Your task to perform on an android device: Is it going to rain this weekend? Image 0: 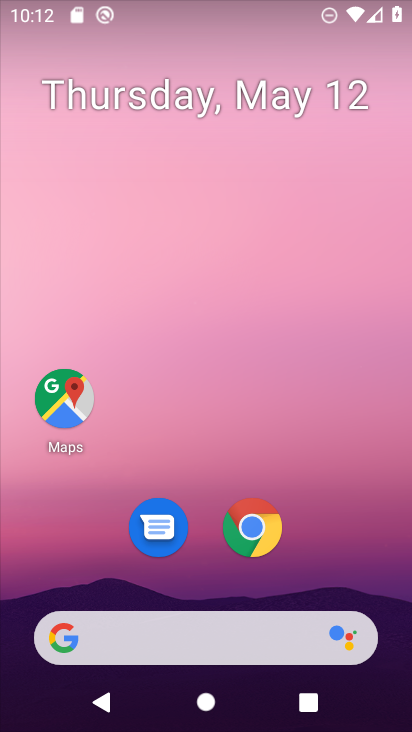
Step 0: drag from (324, 579) to (345, 99)
Your task to perform on an android device: Is it going to rain this weekend? Image 1: 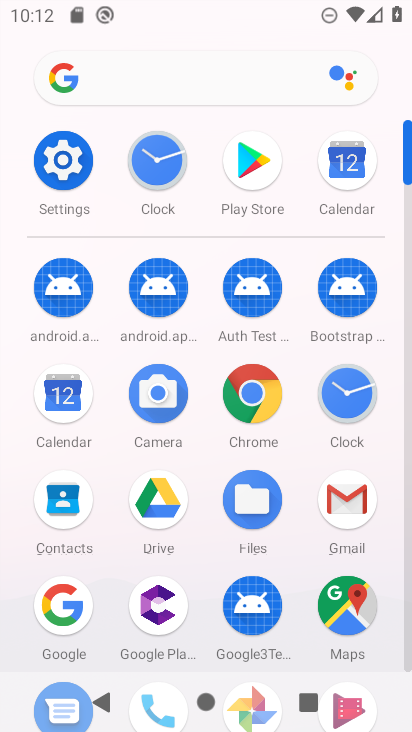
Step 1: click (232, 80)
Your task to perform on an android device: Is it going to rain this weekend? Image 2: 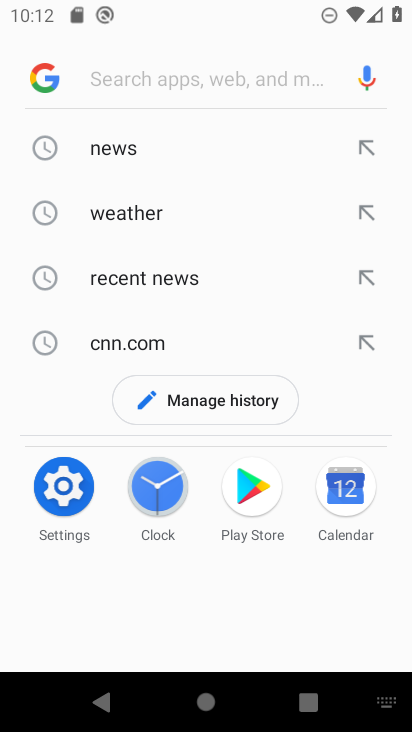
Step 2: click (191, 210)
Your task to perform on an android device: Is it going to rain this weekend? Image 3: 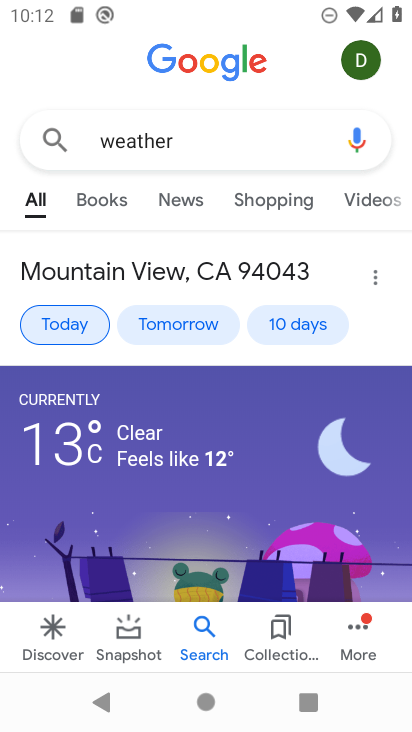
Step 3: click (274, 317)
Your task to perform on an android device: Is it going to rain this weekend? Image 4: 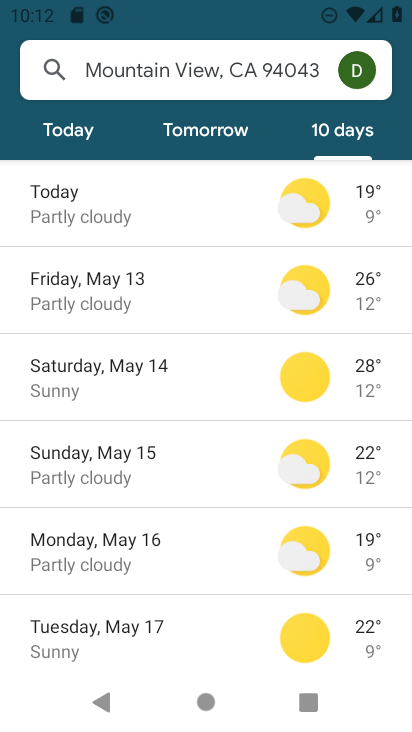
Step 4: task complete